Your task to perform on an android device: Go to Amazon Image 0: 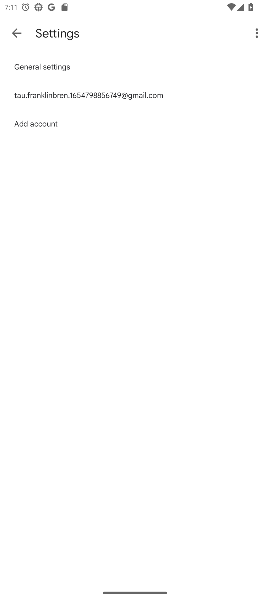
Step 0: press home button
Your task to perform on an android device: Go to Amazon Image 1: 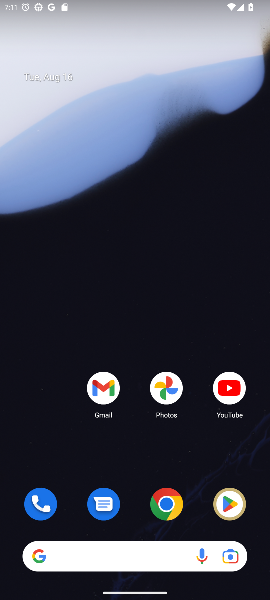
Step 1: click (71, 542)
Your task to perform on an android device: Go to Amazon Image 2: 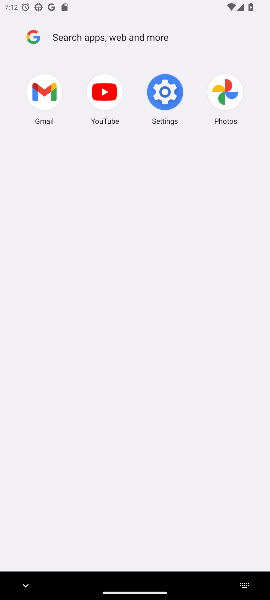
Step 2: type "Amazon"
Your task to perform on an android device: Go to Amazon Image 3: 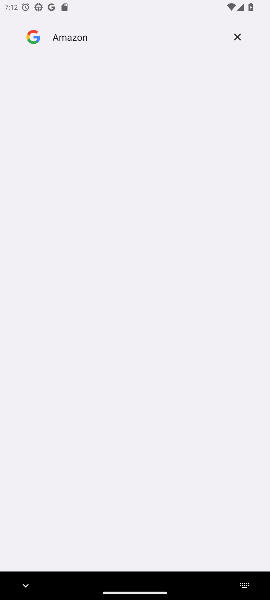
Step 3: type ""
Your task to perform on an android device: Go to Amazon Image 4: 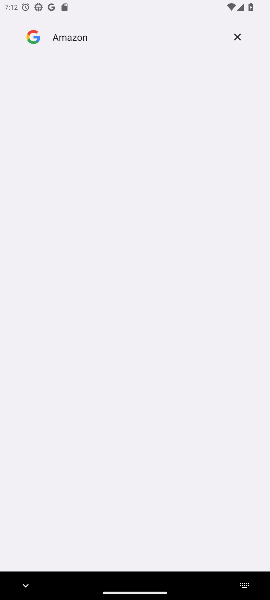
Step 4: type ""
Your task to perform on an android device: Go to Amazon Image 5: 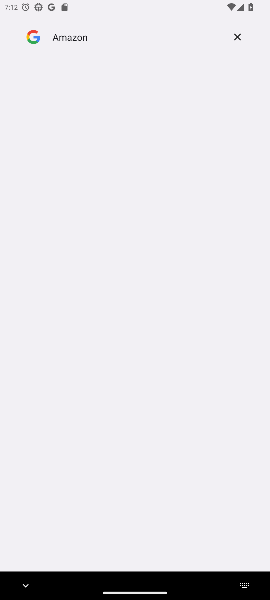
Step 5: task complete